Your task to perform on an android device: Open wifi settings Image 0: 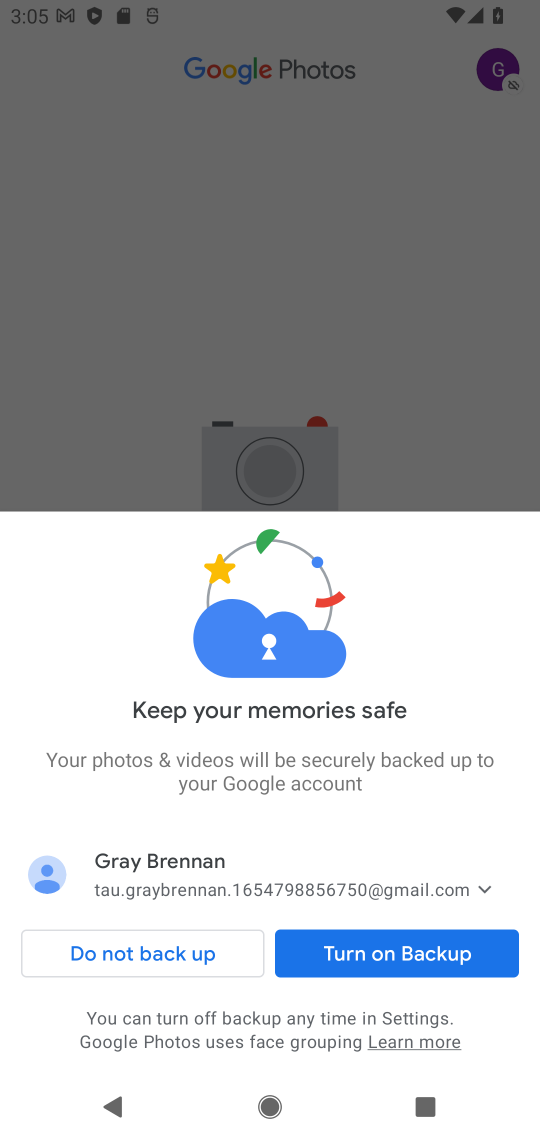
Step 0: press home button
Your task to perform on an android device: Open wifi settings Image 1: 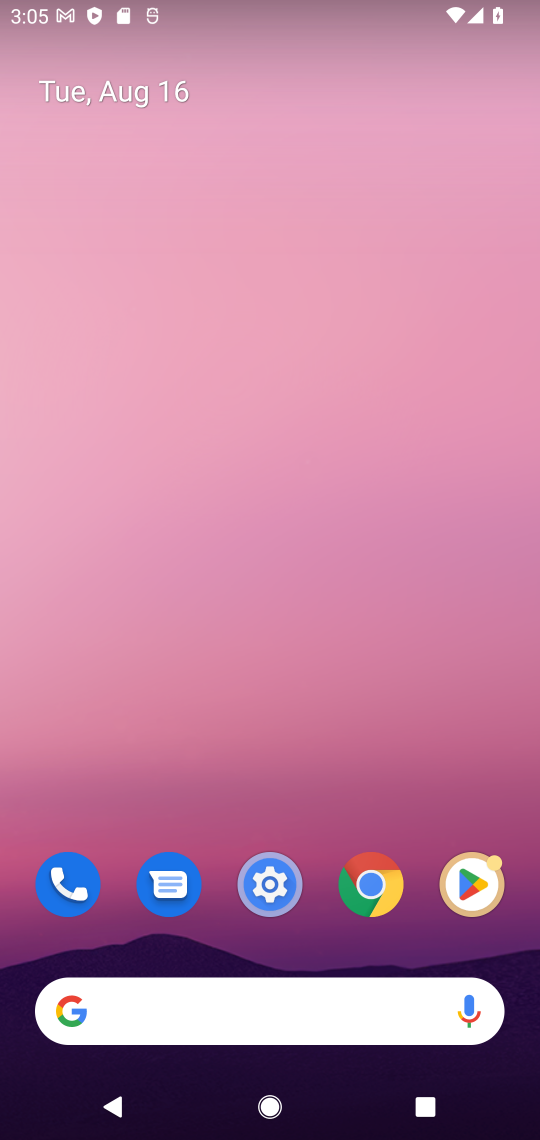
Step 1: click (248, 865)
Your task to perform on an android device: Open wifi settings Image 2: 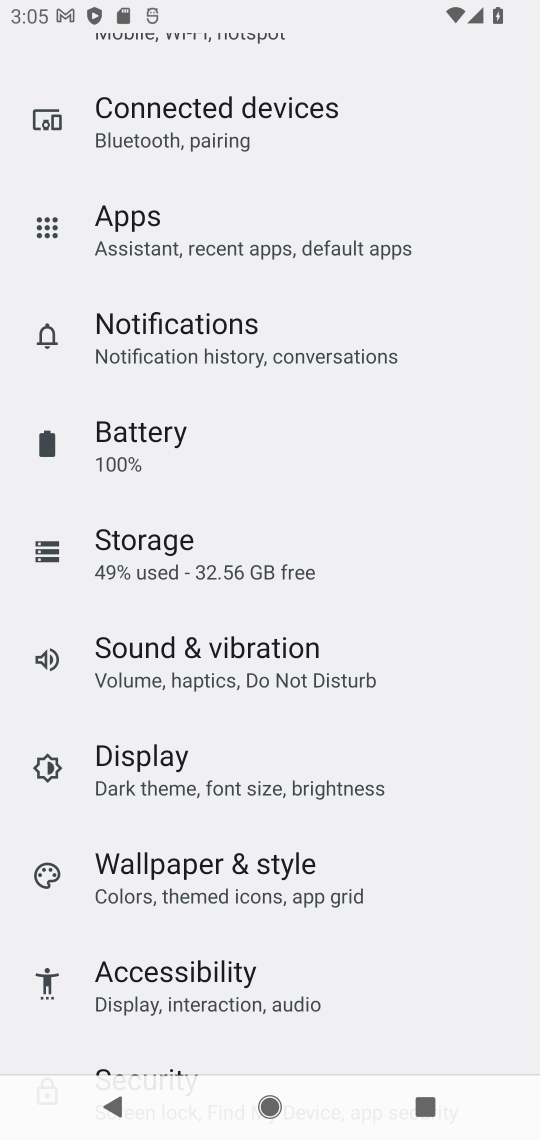
Step 2: drag from (274, 228) to (345, 853)
Your task to perform on an android device: Open wifi settings Image 3: 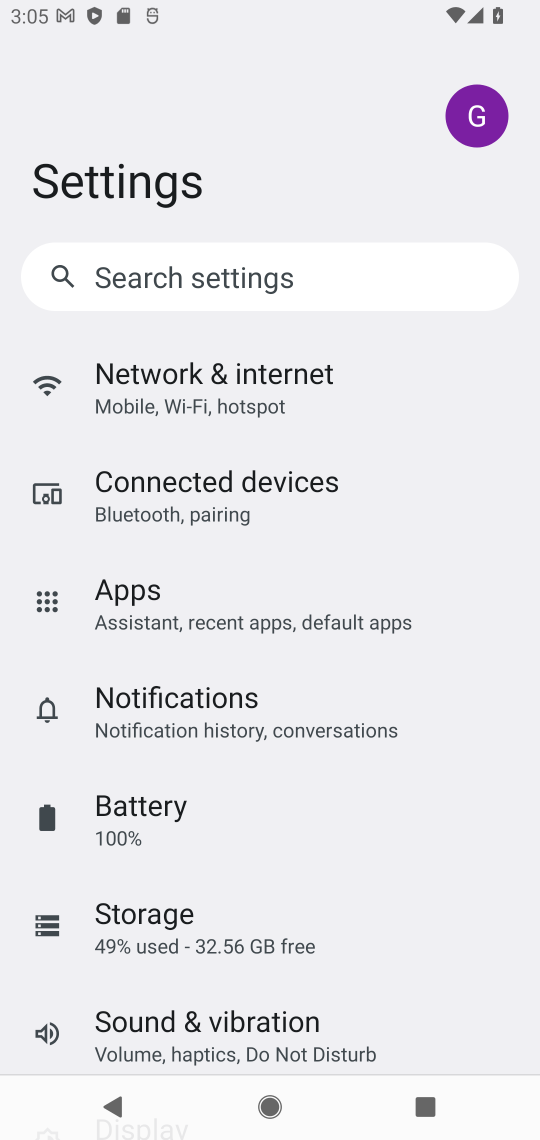
Step 3: click (298, 351)
Your task to perform on an android device: Open wifi settings Image 4: 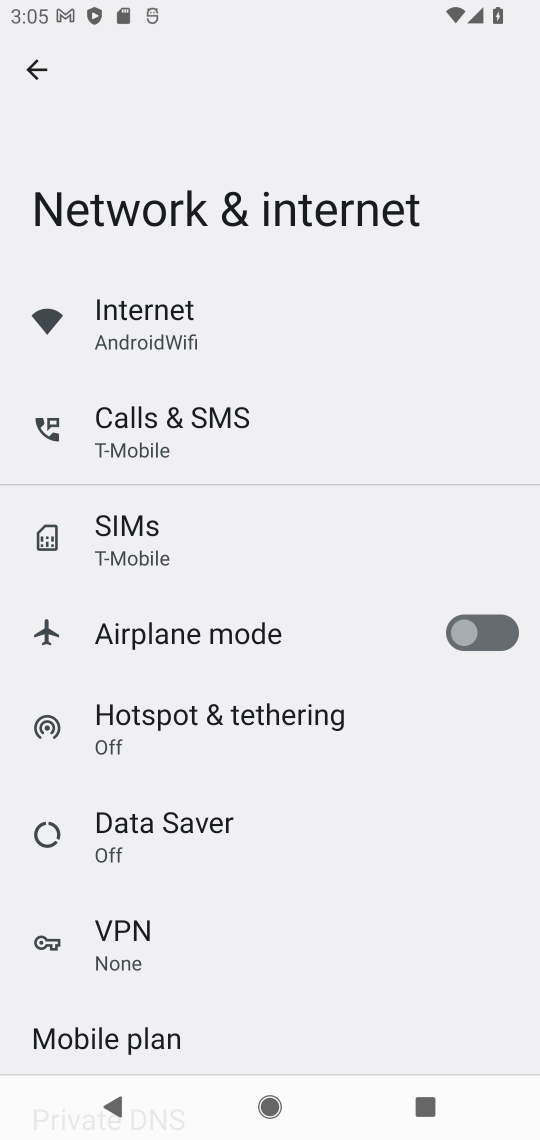
Step 4: click (196, 345)
Your task to perform on an android device: Open wifi settings Image 5: 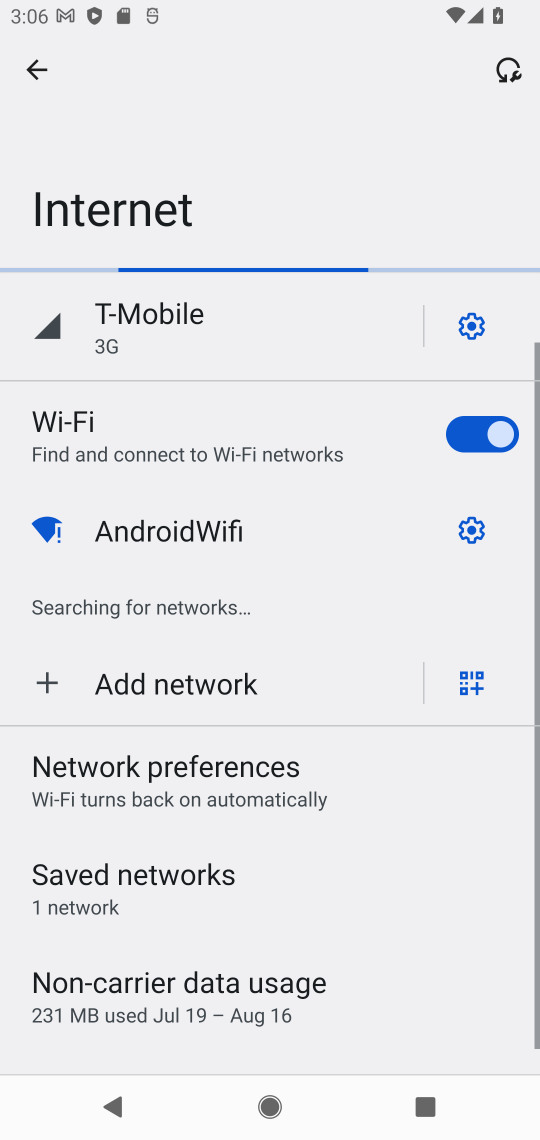
Step 5: click (60, 416)
Your task to perform on an android device: Open wifi settings Image 6: 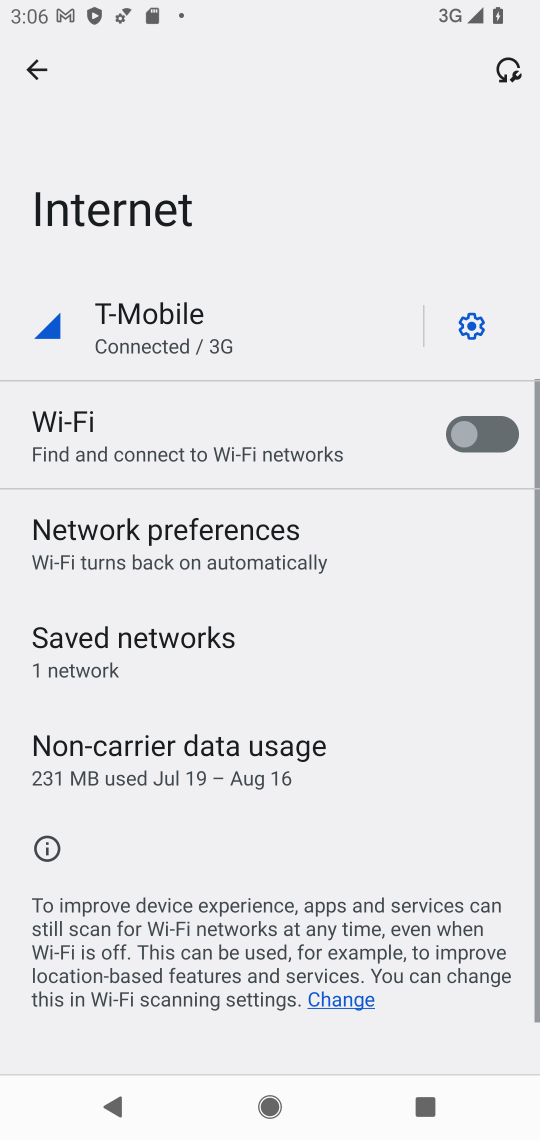
Step 6: click (488, 416)
Your task to perform on an android device: Open wifi settings Image 7: 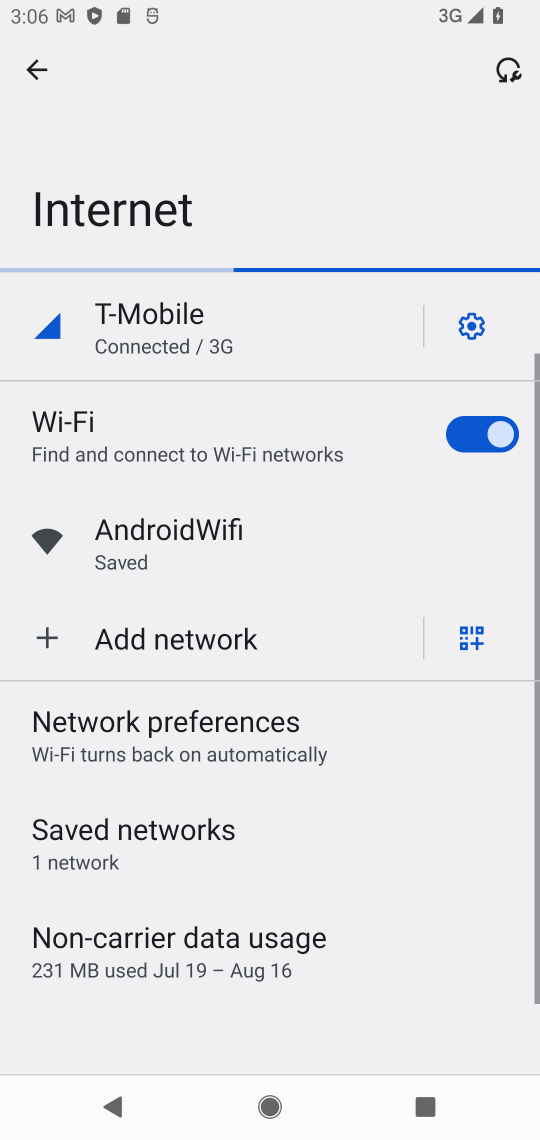
Step 7: task complete